Your task to perform on an android device: What's the weather? Image 0: 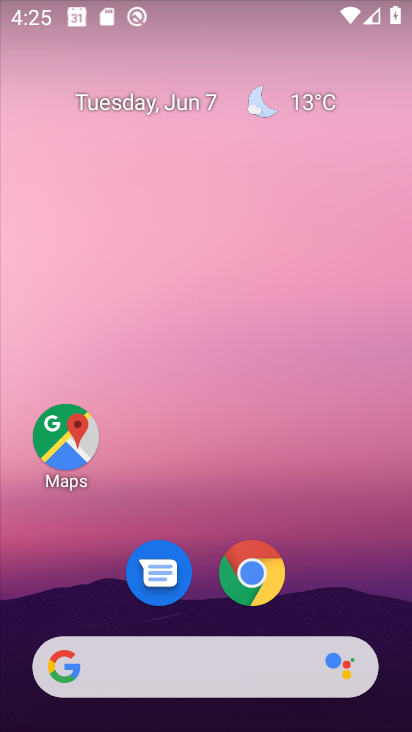
Step 0: press home button
Your task to perform on an android device: What's the weather? Image 1: 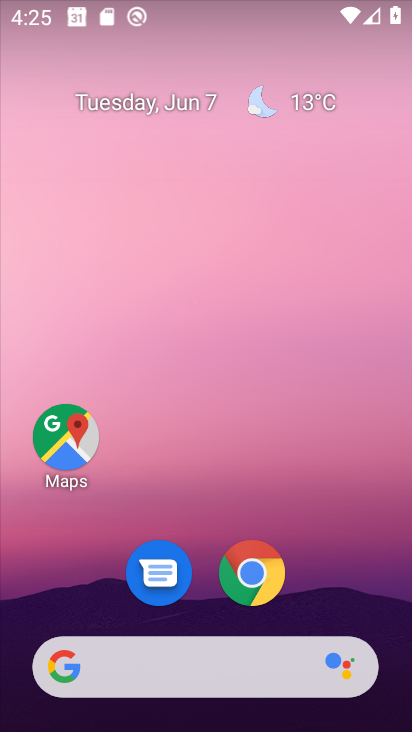
Step 1: click (239, 565)
Your task to perform on an android device: What's the weather? Image 2: 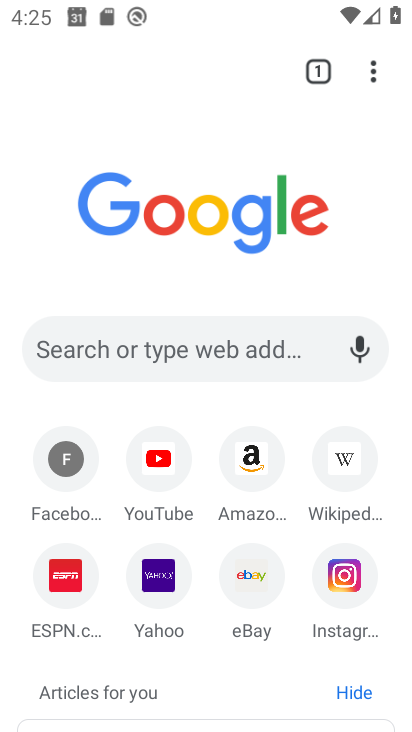
Step 2: click (242, 336)
Your task to perform on an android device: What's the weather? Image 3: 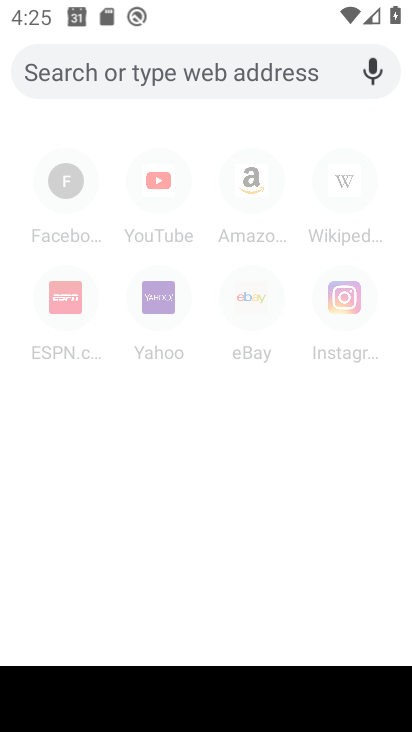
Step 3: type "What's the weather?"
Your task to perform on an android device: What's the weather? Image 4: 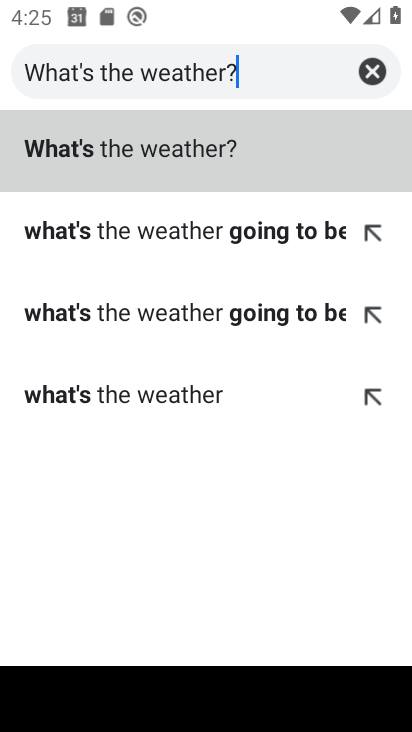
Step 4: type ""
Your task to perform on an android device: What's the weather? Image 5: 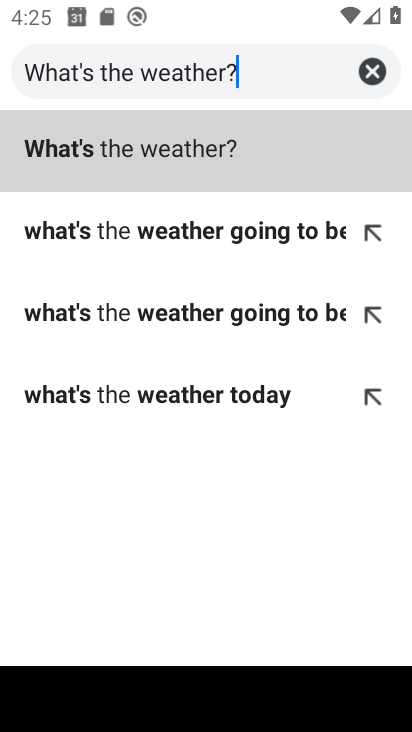
Step 5: click (273, 135)
Your task to perform on an android device: What's the weather? Image 6: 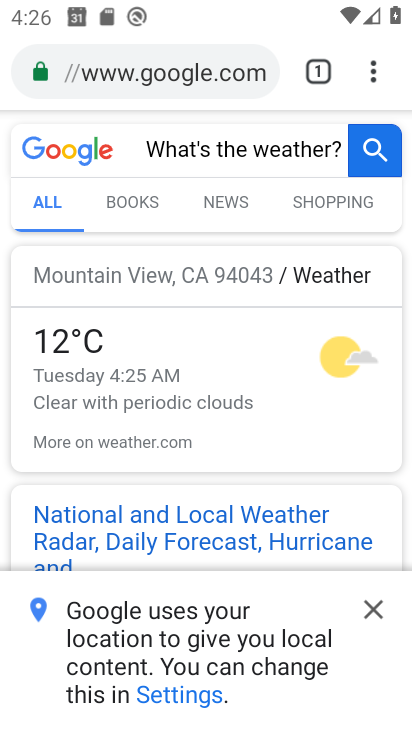
Step 6: task complete